Your task to perform on an android device: uninstall "Truecaller" Image 0: 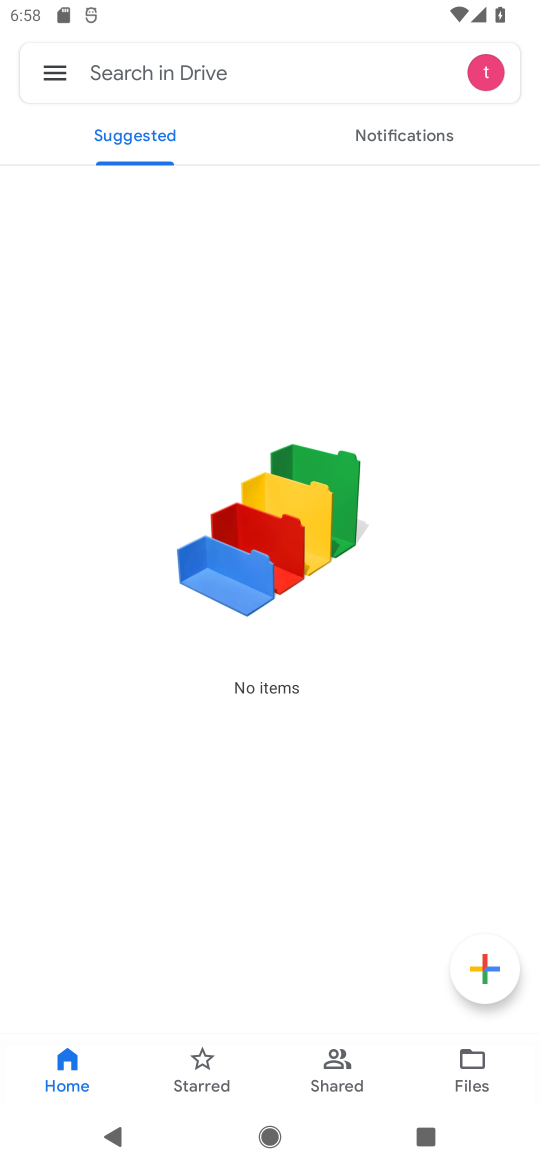
Step 0: press home button
Your task to perform on an android device: uninstall "Truecaller" Image 1: 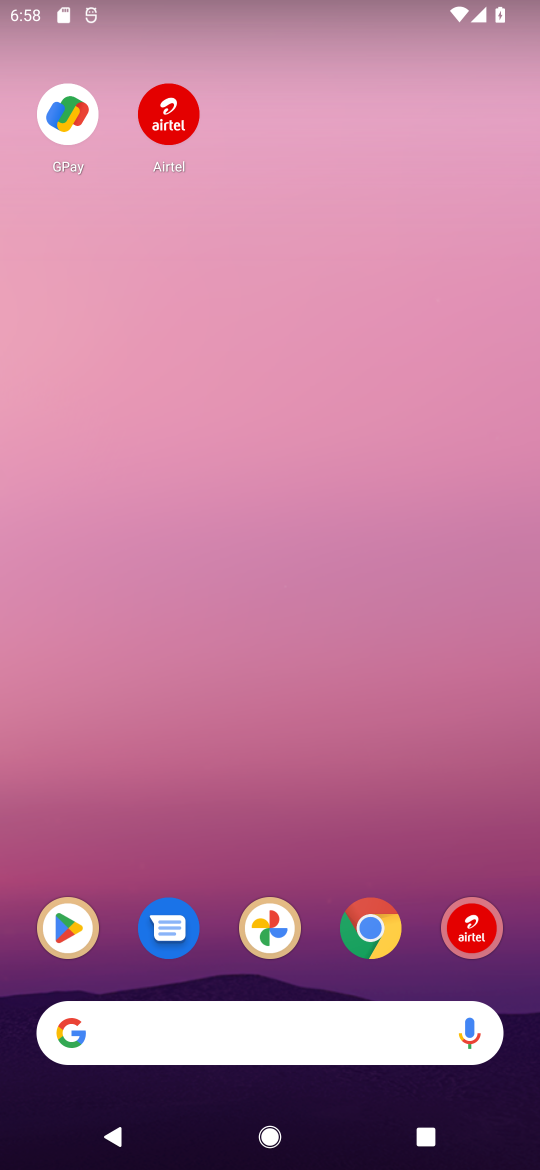
Step 1: click (81, 922)
Your task to perform on an android device: uninstall "Truecaller" Image 2: 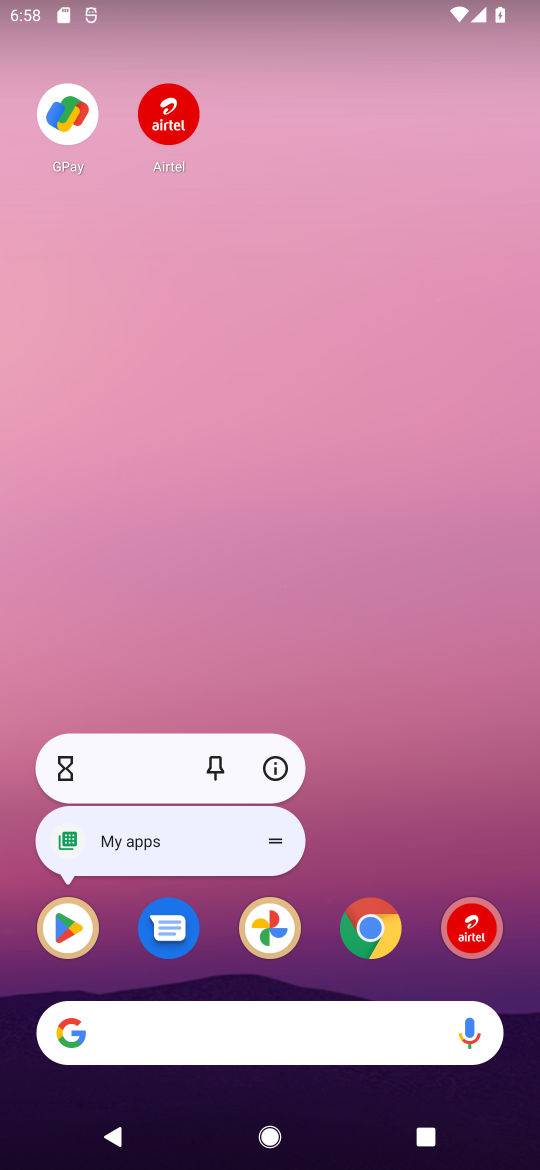
Step 2: click (81, 922)
Your task to perform on an android device: uninstall "Truecaller" Image 3: 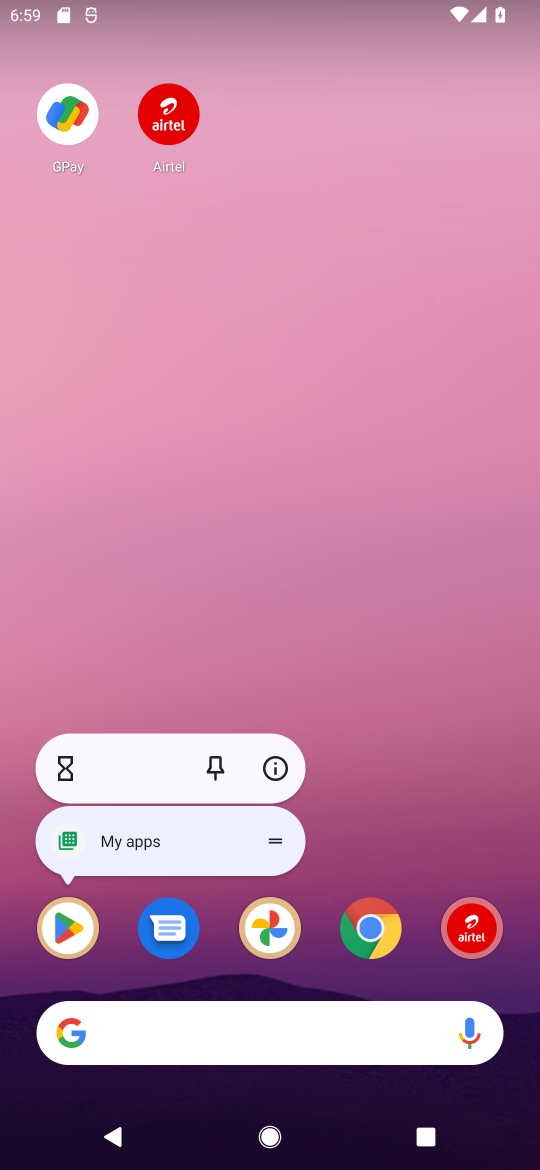
Step 3: click (74, 924)
Your task to perform on an android device: uninstall "Truecaller" Image 4: 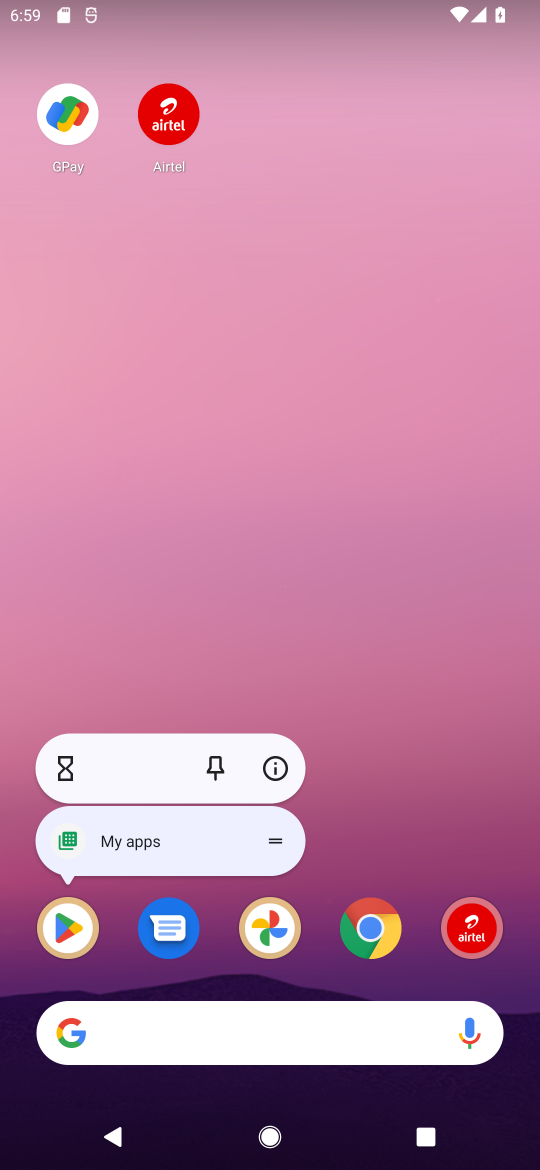
Step 4: click (46, 946)
Your task to perform on an android device: uninstall "Truecaller" Image 5: 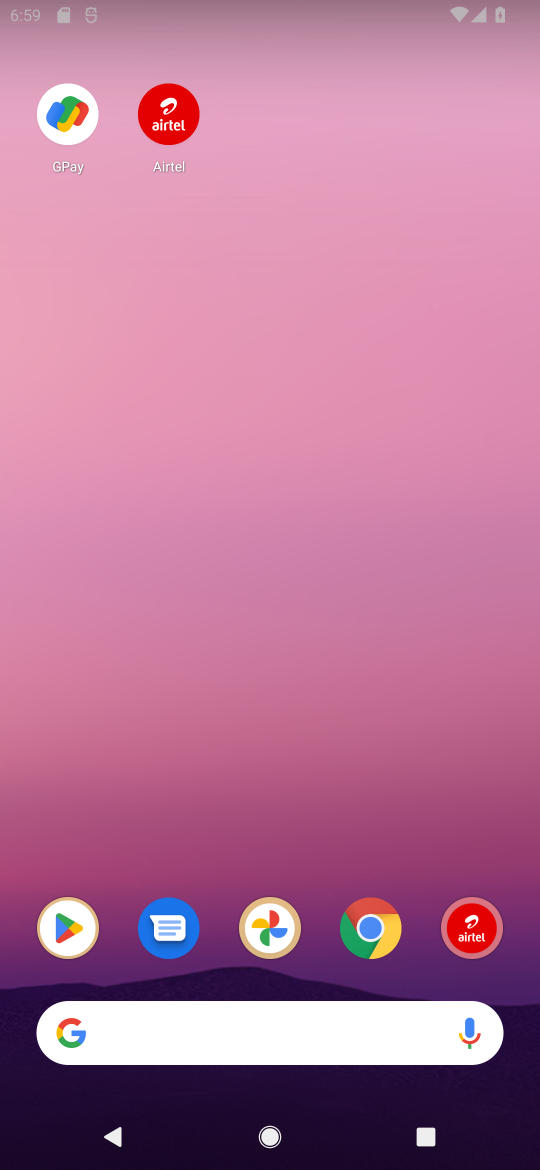
Step 5: click (43, 918)
Your task to perform on an android device: uninstall "Truecaller" Image 6: 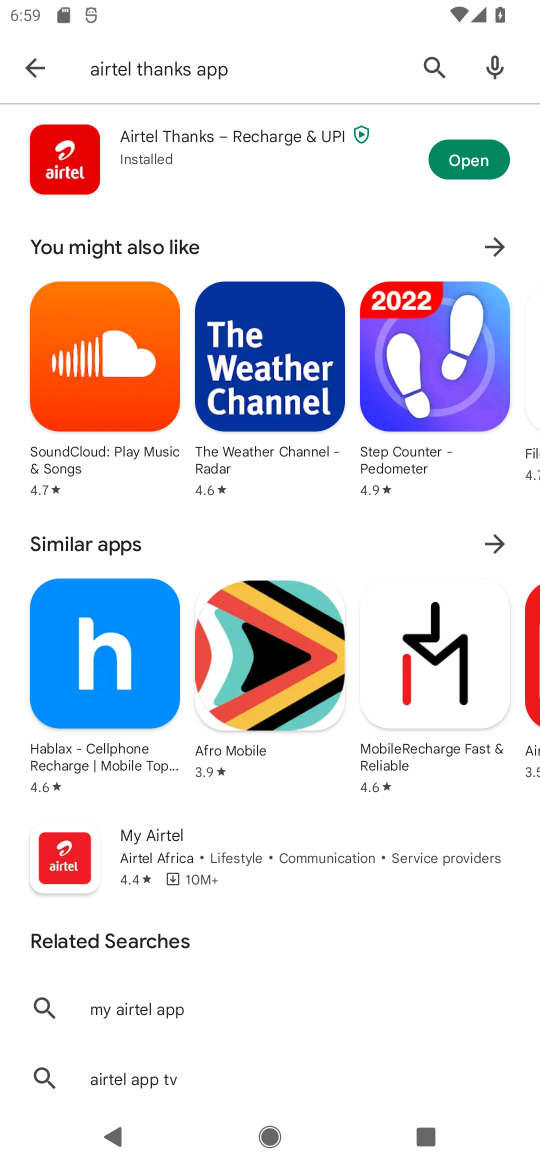
Step 6: click (435, 59)
Your task to perform on an android device: uninstall "Truecaller" Image 7: 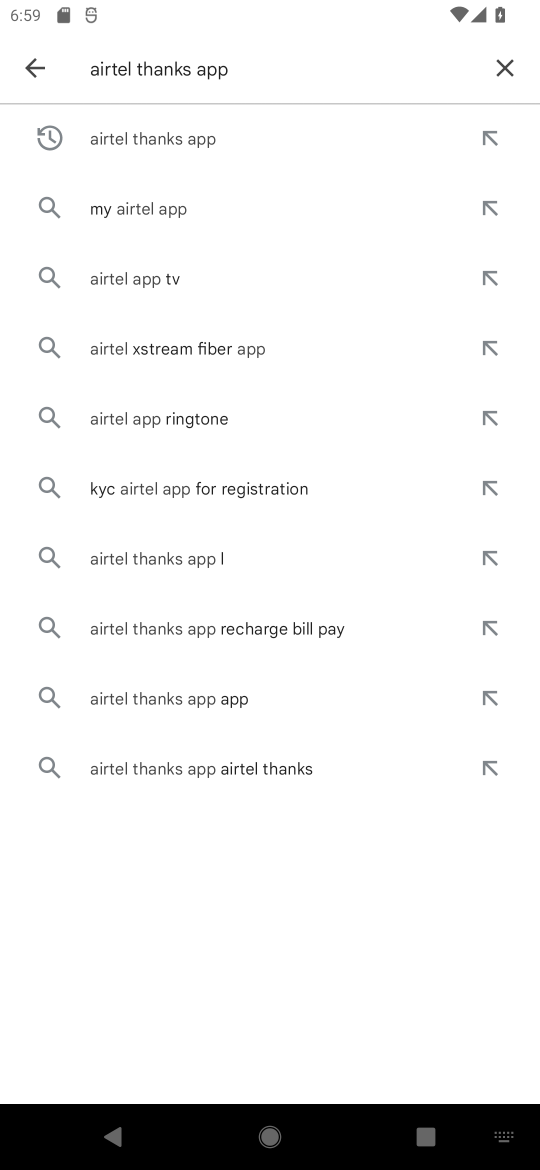
Step 7: click (516, 62)
Your task to perform on an android device: uninstall "Truecaller" Image 8: 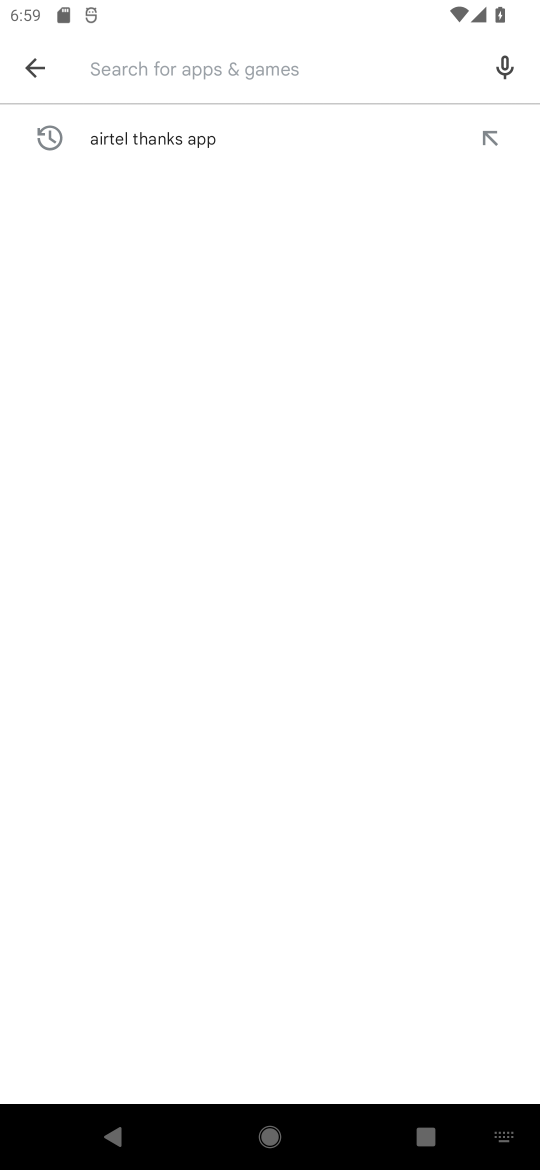
Step 8: type ""
Your task to perform on an android device: uninstall "Truecaller" Image 9: 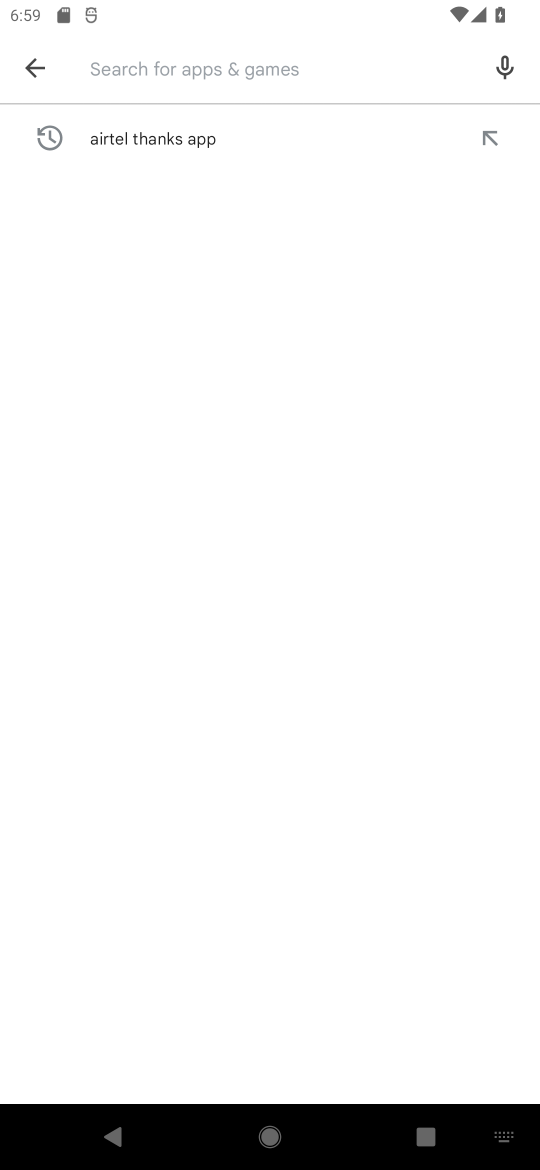
Step 9: type "truecaller"
Your task to perform on an android device: uninstall "Truecaller" Image 10: 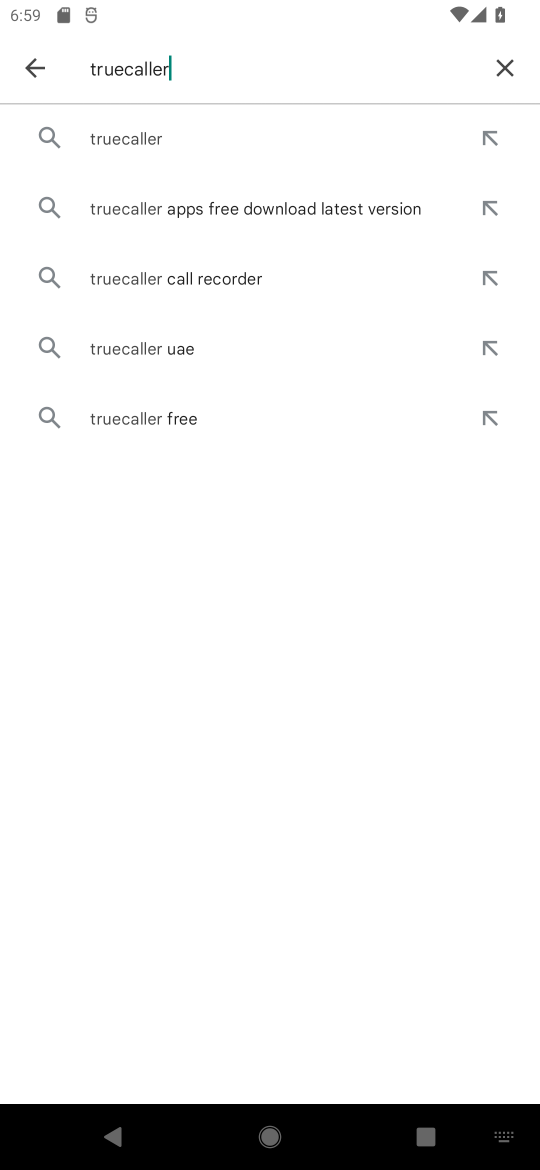
Step 10: click (168, 143)
Your task to perform on an android device: uninstall "Truecaller" Image 11: 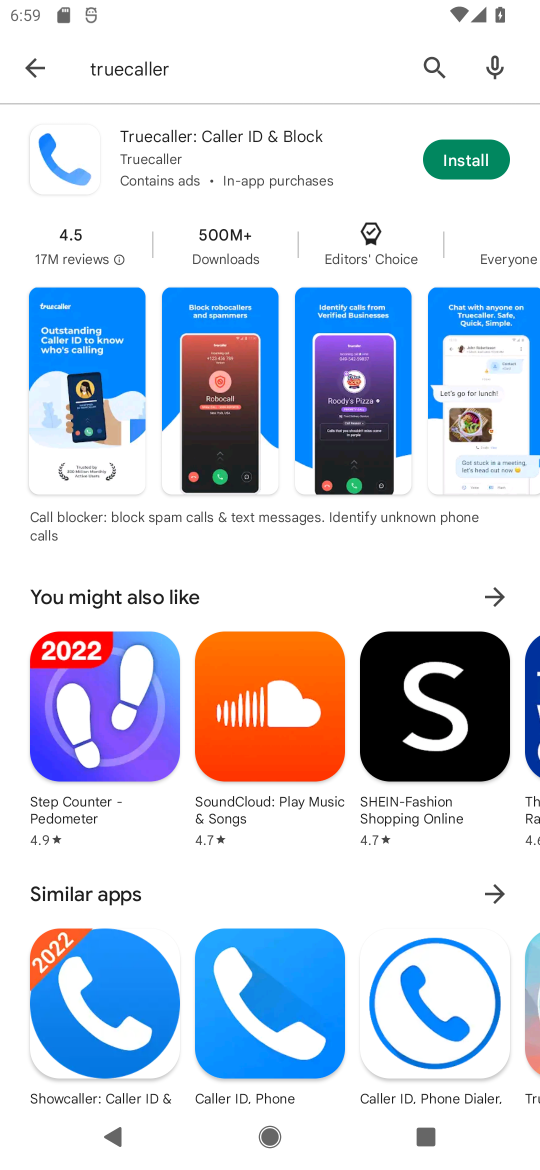
Step 11: task complete